Your task to perform on an android device: Search for Mexican restaurants on Maps Image 0: 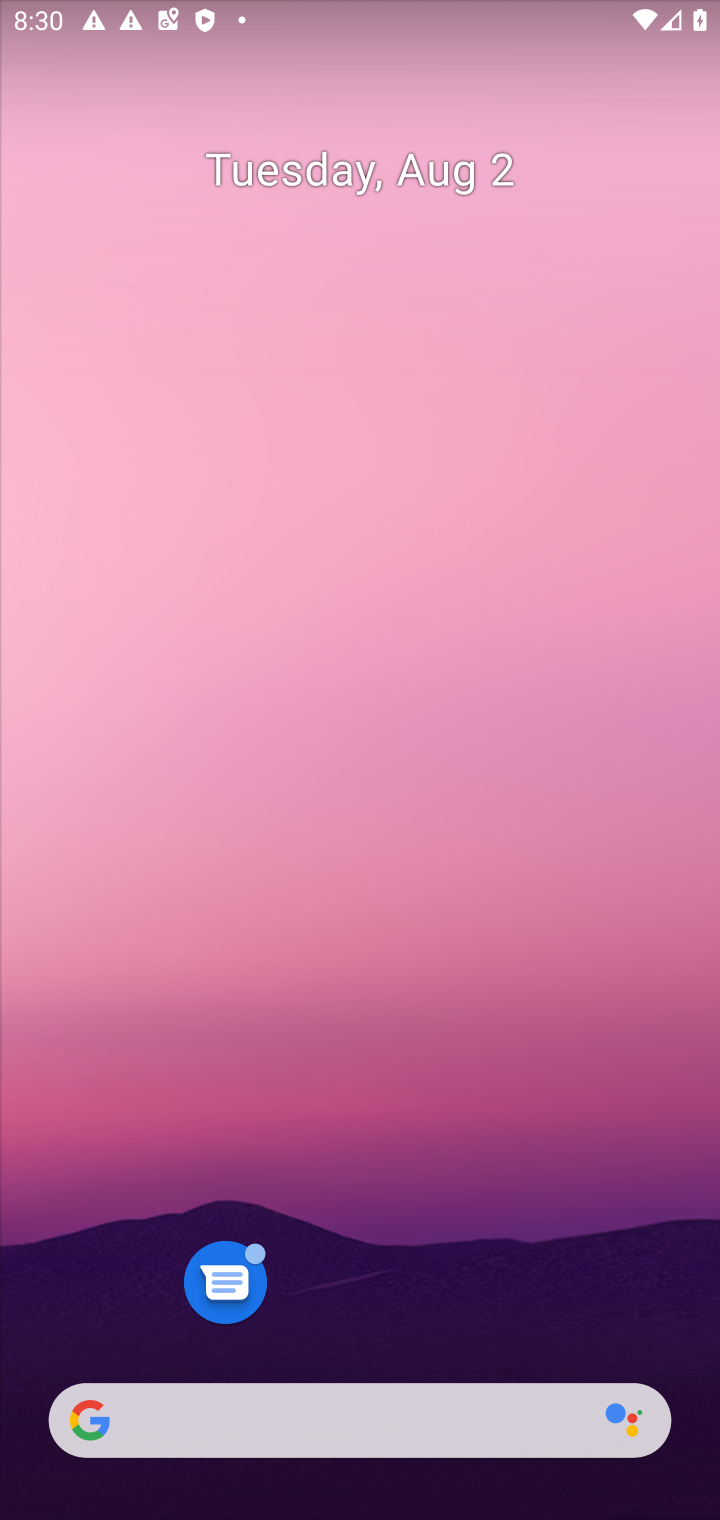
Step 0: drag from (307, 1403) to (20, 109)
Your task to perform on an android device: Search for Mexican restaurants on Maps Image 1: 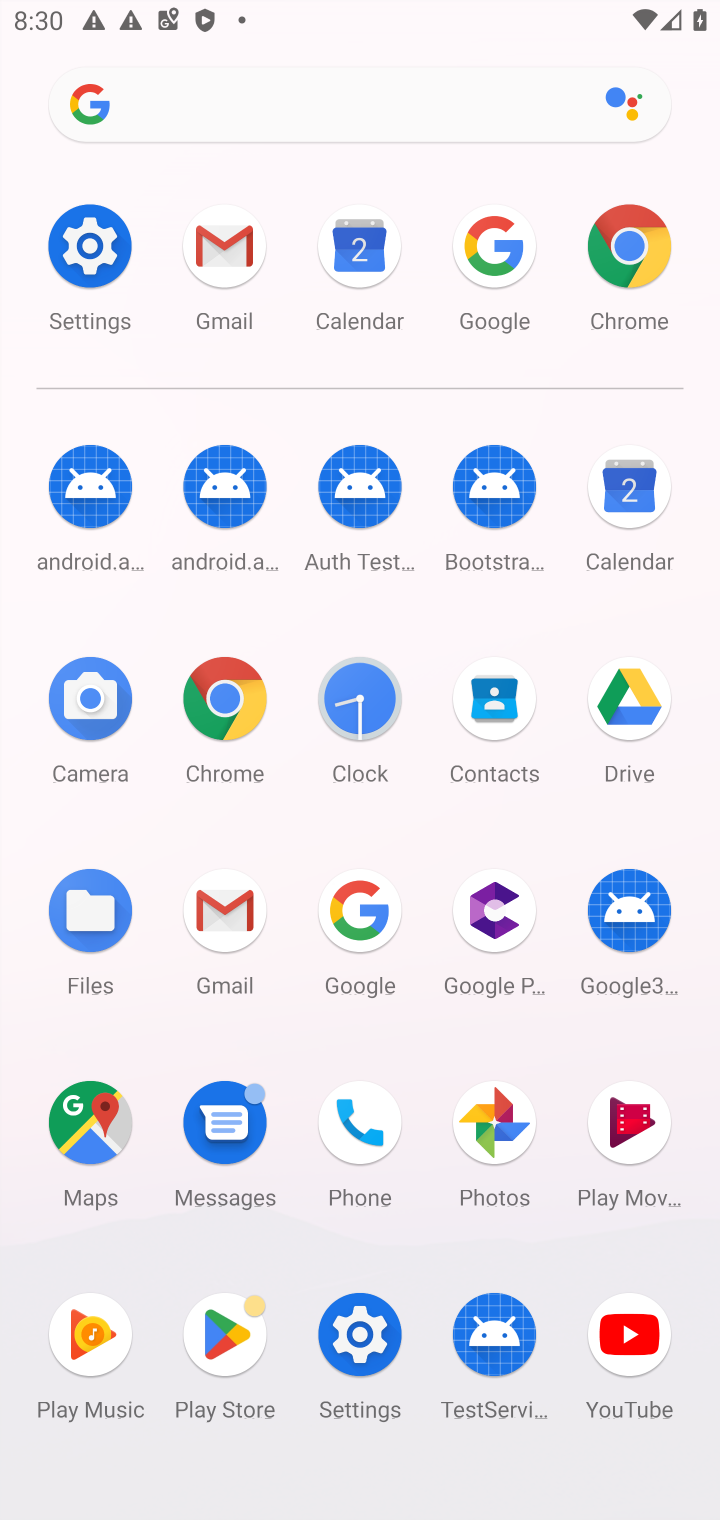
Step 1: click (81, 1098)
Your task to perform on an android device: Search for Mexican restaurants on Maps Image 2: 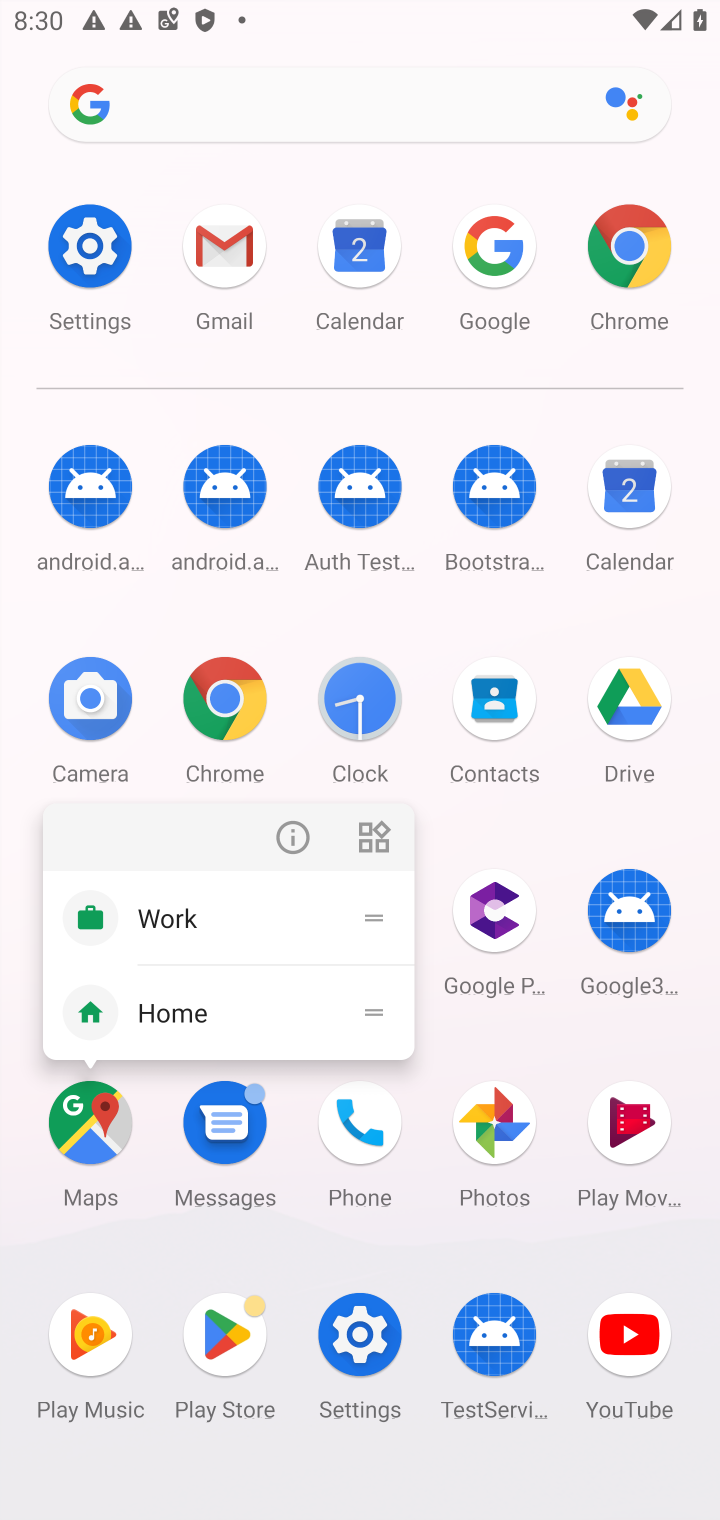
Step 2: click (83, 1120)
Your task to perform on an android device: Search for Mexican restaurants on Maps Image 3: 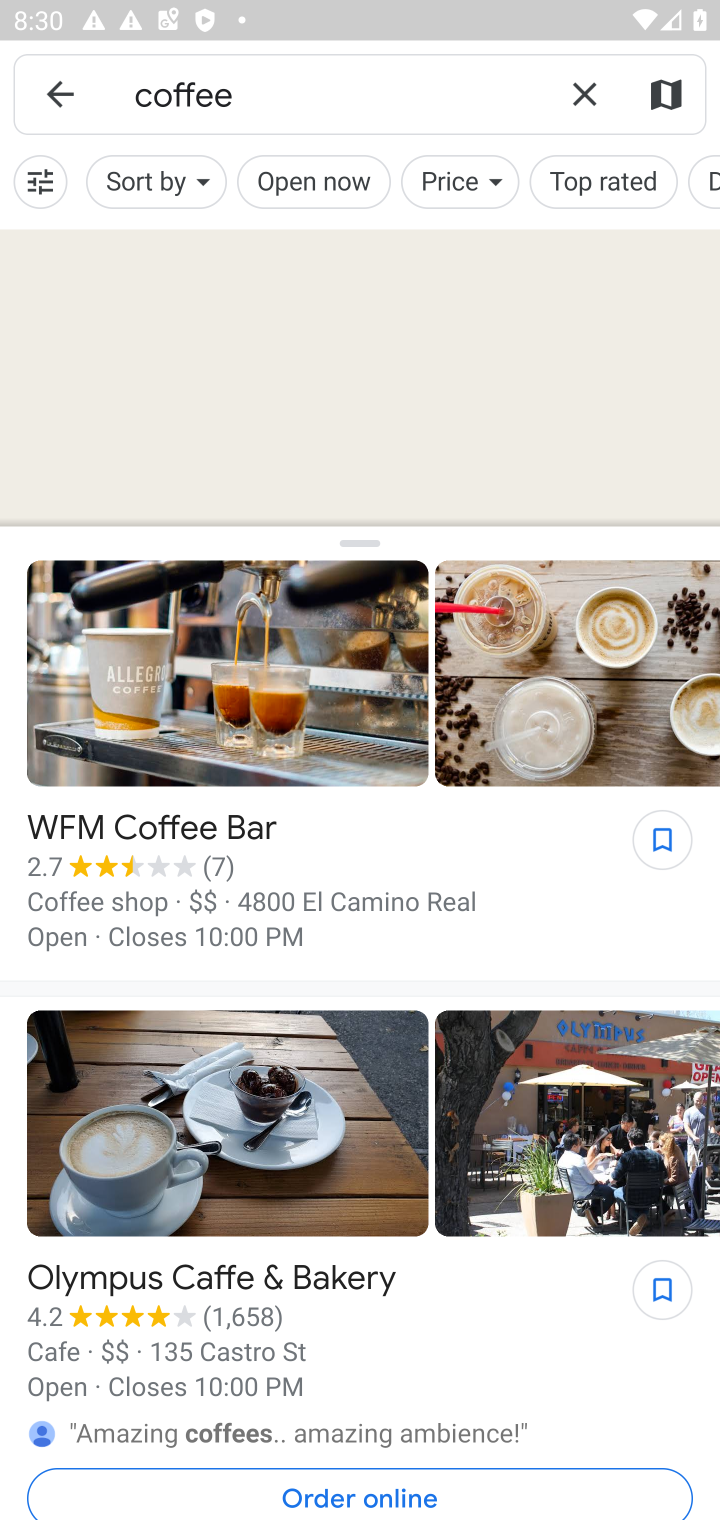
Step 3: click (577, 84)
Your task to perform on an android device: Search for Mexican restaurants on Maps Image 4: 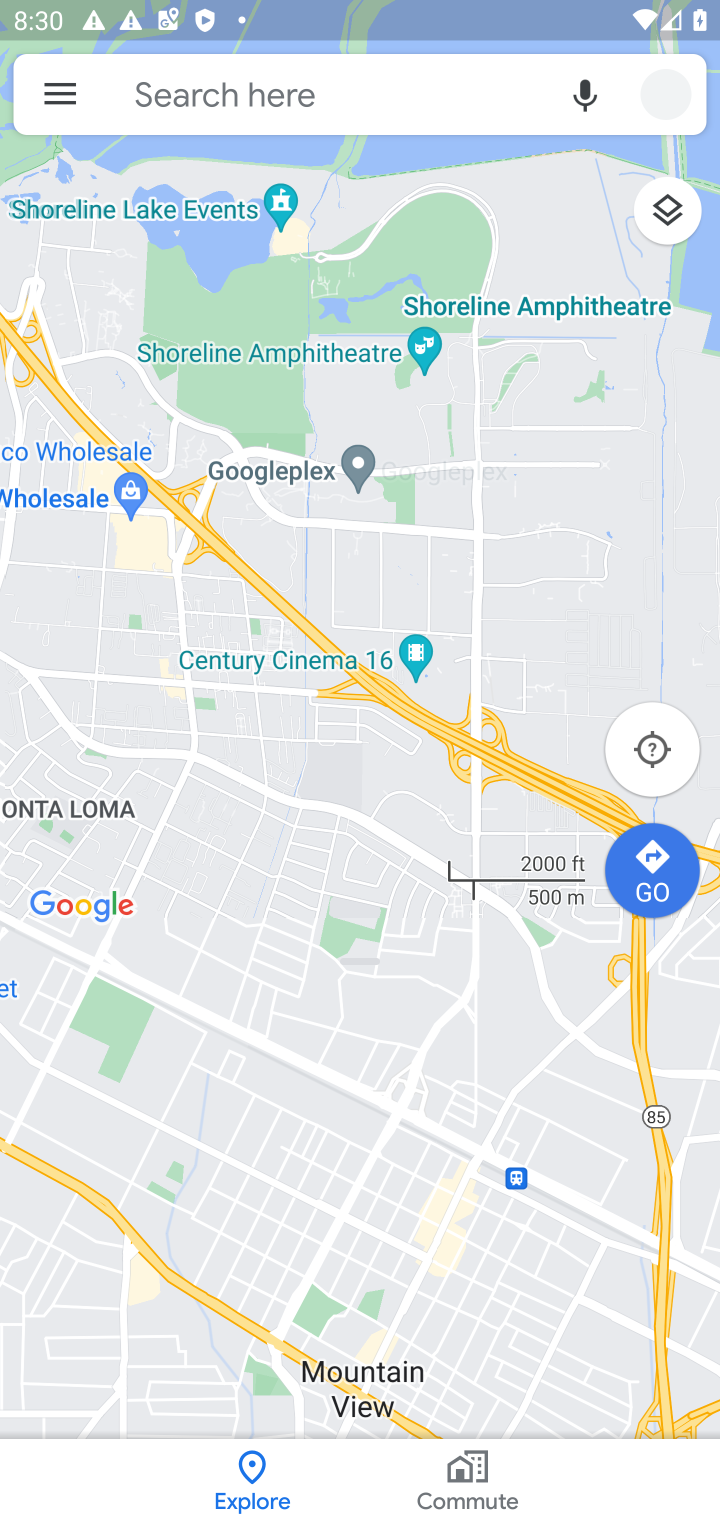
Step 4: click (287, 119)
Your task to perform on an android device: Search for Mexican restaurants on Maps Image 5: 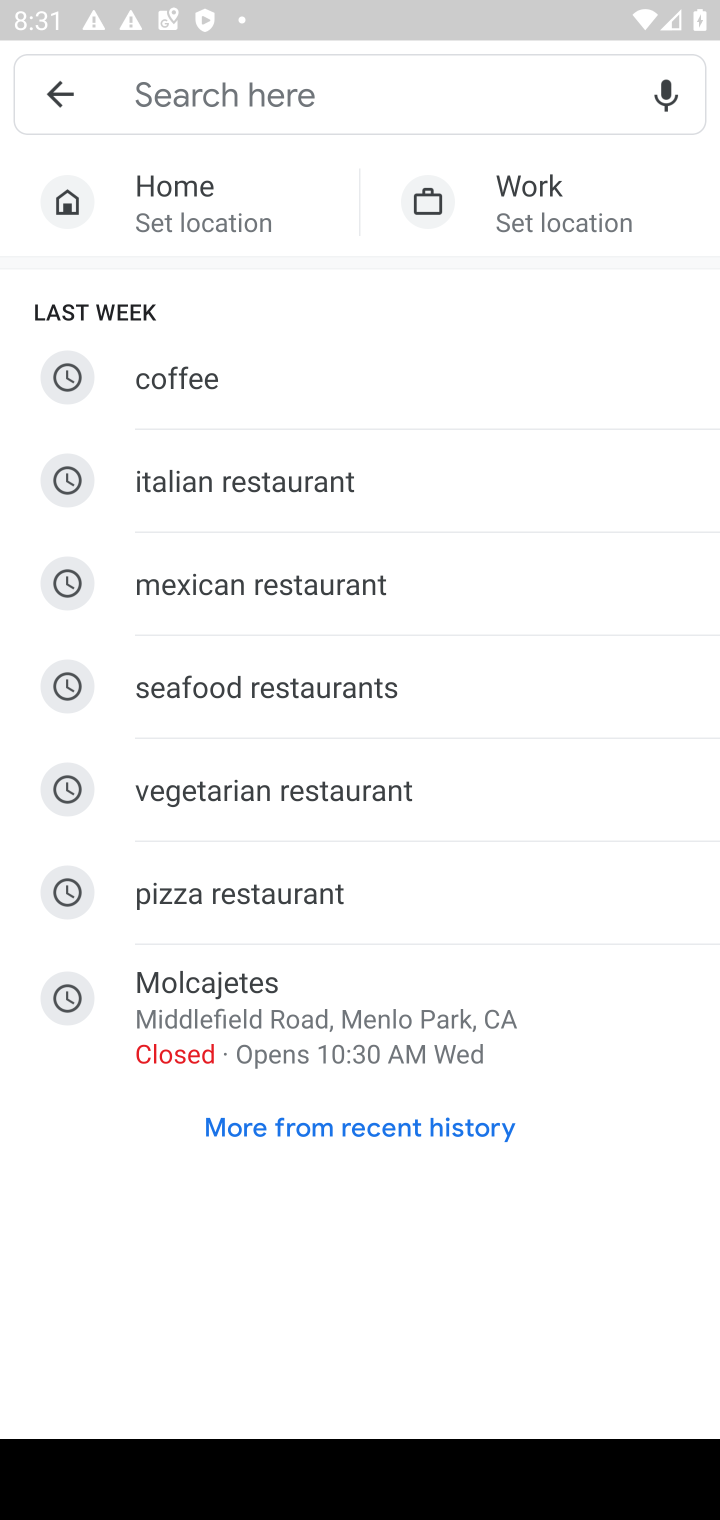
Step 5: click (170, 597)
Your task to perform on an android device: Search for Mexican restaurants on Maps Image 6: 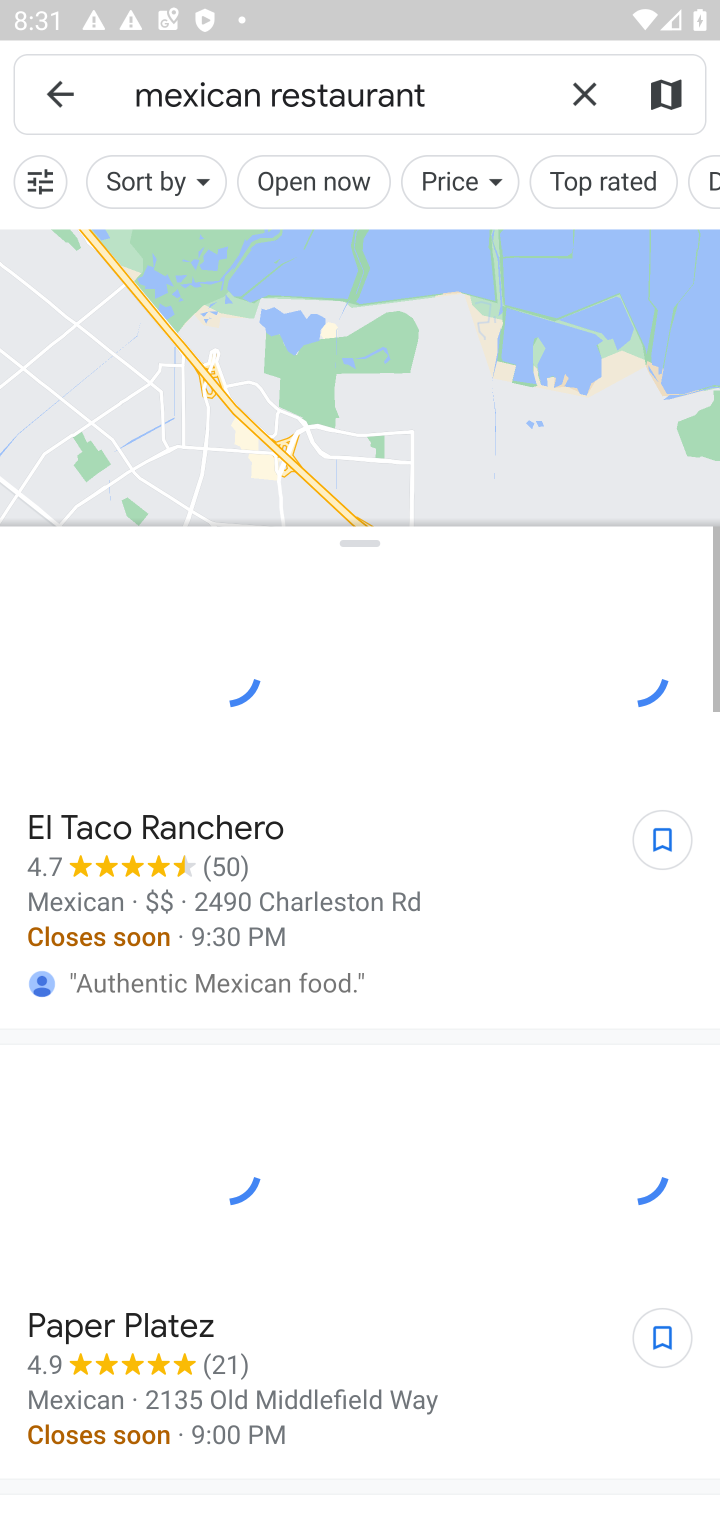
Step 6: task complete